Your task to perform on an android device: turn on airplane mode Image 0: 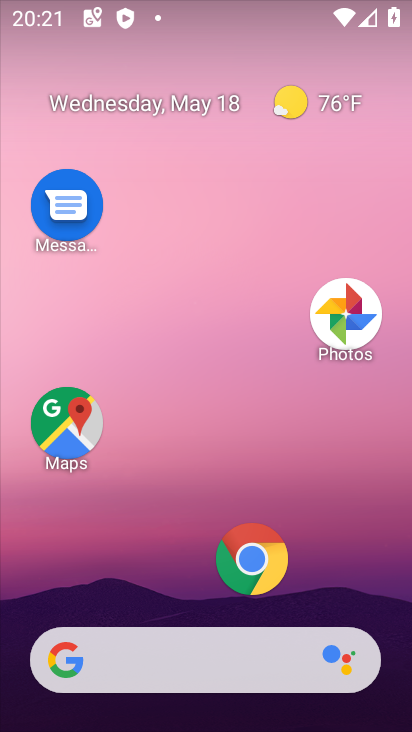
Step 0: drag from (195, 603) to (178, 2)
Your task to perform on an android device: turn on airplane mode Image 1: 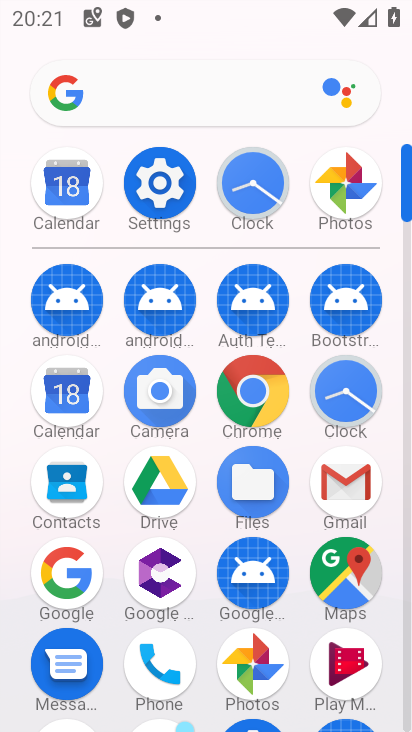
Step 1: click (170, 208)
Your task to perform on an android device: turn on airplane mode Image 2: 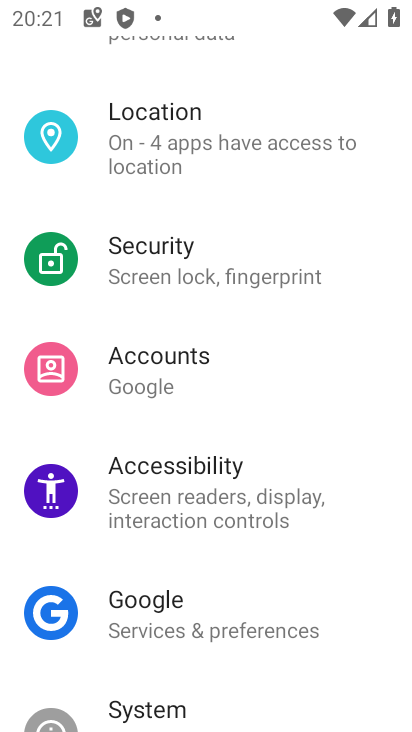
Step 2: drag from (193, 206) to (172, 682)
Your task to perform on an android device: turn on airplane mode Image 3: 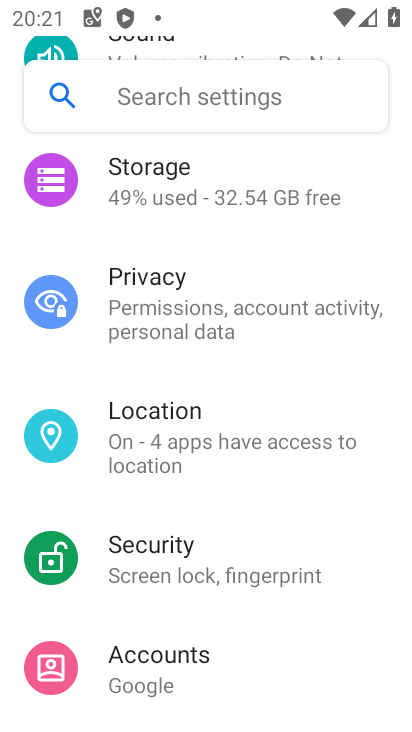
Step 3: drag from (148, 139) to (277, 690)
Your task to perform on an android device: turn on airplane mode Image 4: 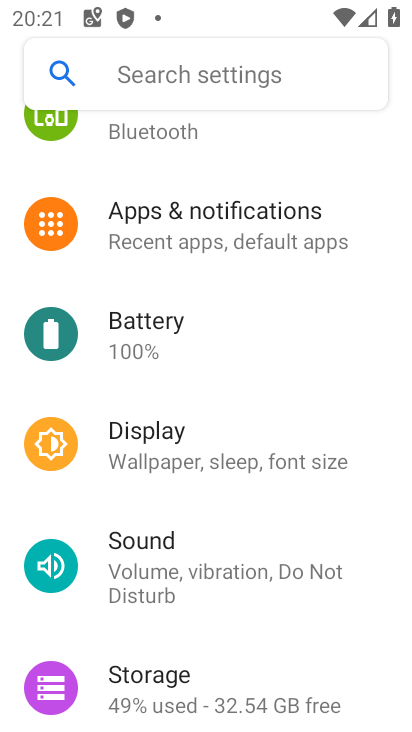
Step 4: drag from (290, 252) to (256, 728)
Your task to perform on an android device: turn on airplane mode Image 5: 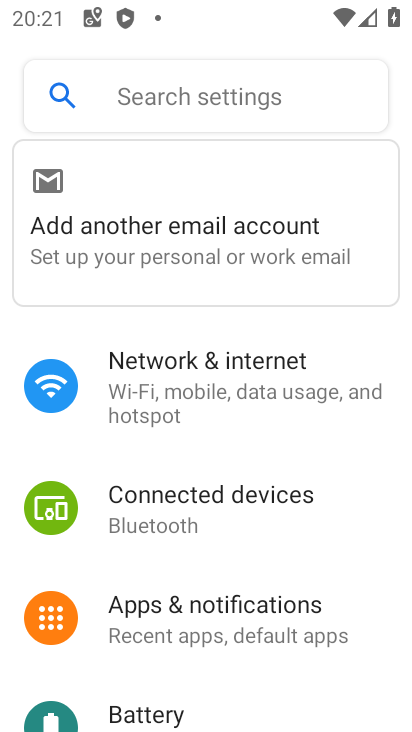
Step 5: click (198, 408)
Your task to perform on an android device: turn on airplane mode Image 6: 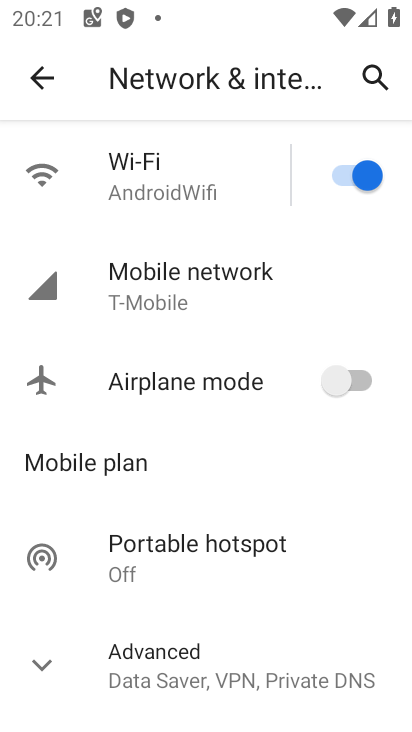
Step 6: click (339, 399)
Your task to perform on an android device: turn on airplane mode Image 7: 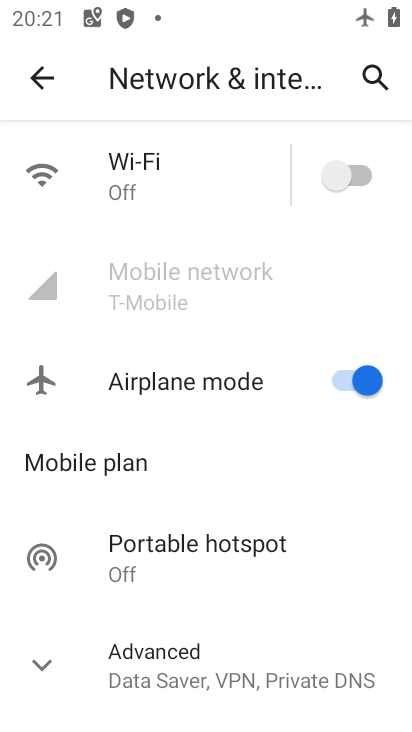
Step 7: task complete